Your task to perform on an android device: Open notification settings Image 0: 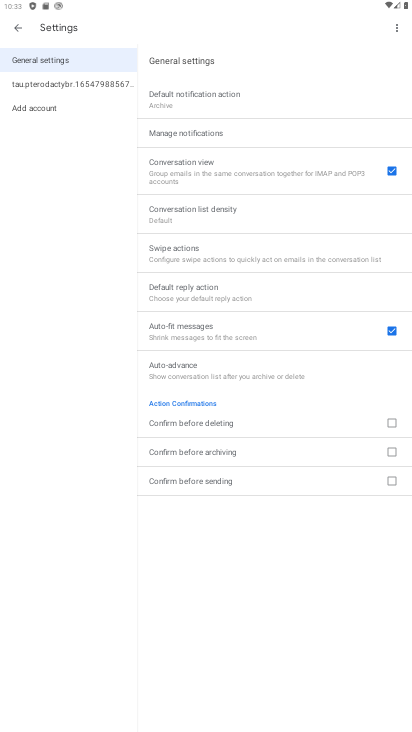
Step 0: press home button
Your task to perform on an android device: Open notification settings Image 1: 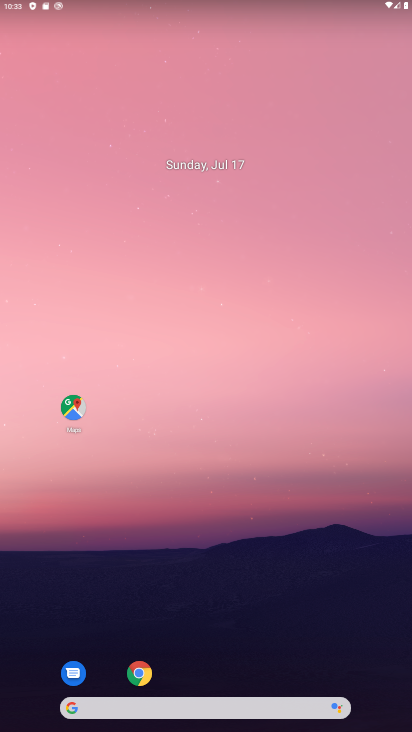
Step 1: drag from (180, 688) to (157, 95)
Your task to perform on an android device: Open notification settings Image 2: 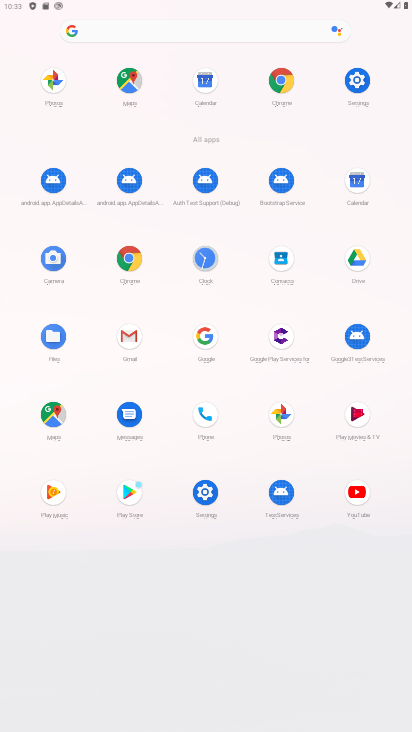
Step 2: click (360, 79)
Your task to perform on an android device: Open notification settings Image 3: 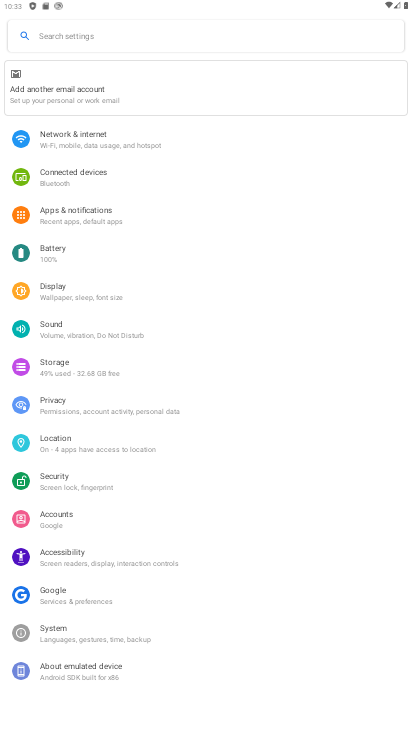
Step 3: click (106, 204)
Your task to perform on an android device: Open notification settings Image 4: 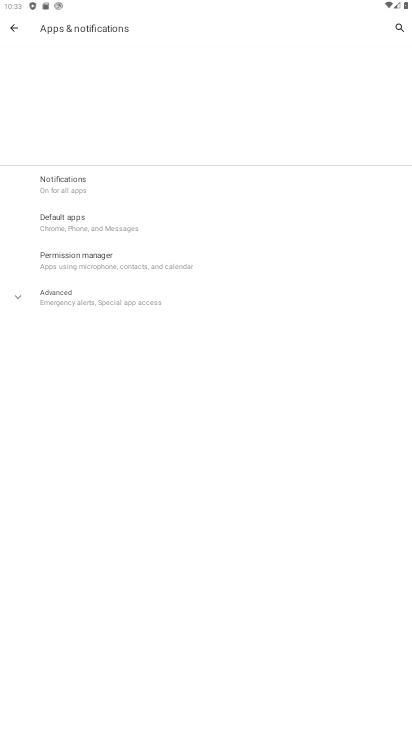
Step 4: click (73, 187)
Your task to perform on an android device: Open notification settings Image 5: 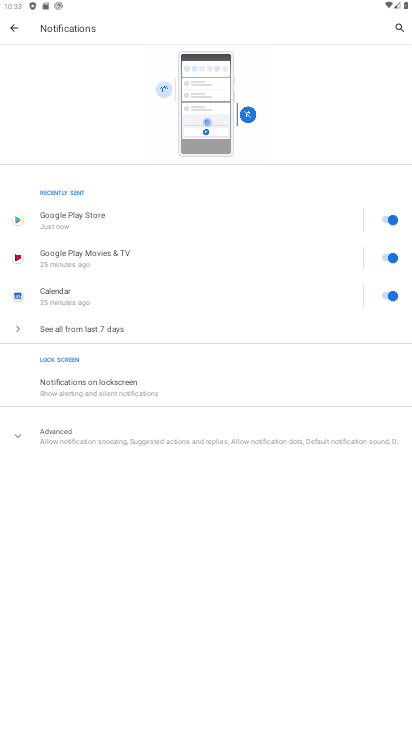
Step 5: task complete